Your task to perform on an android device: Go to Maps Image 0: 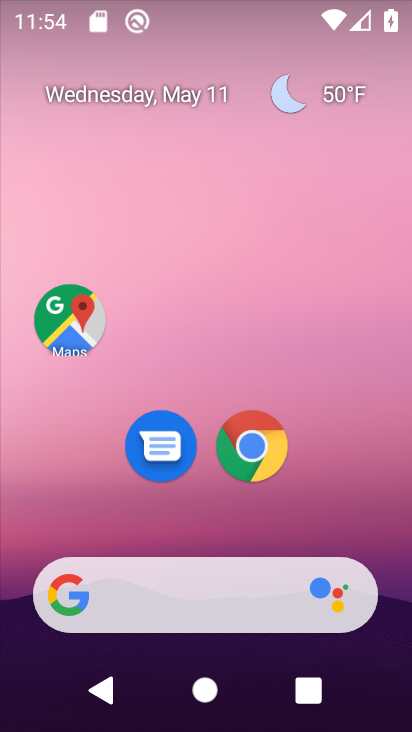
Step 0: click (89, 325)
Your task to perform on an android device: Go to Maps Image 1: 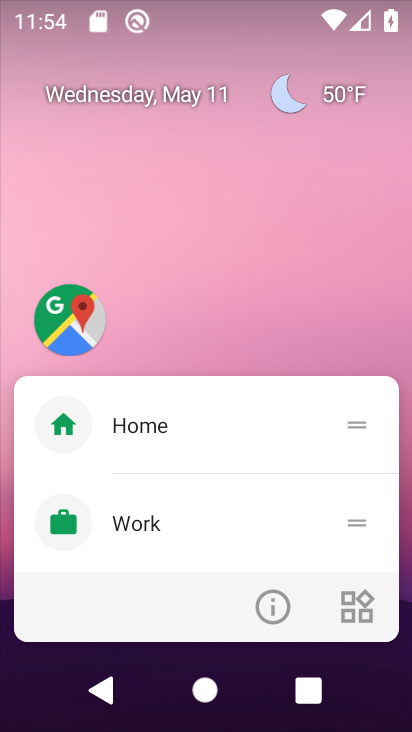
Step 1: click (89, 325)
Your task to perform on an android device: Go to Maps Image 2: 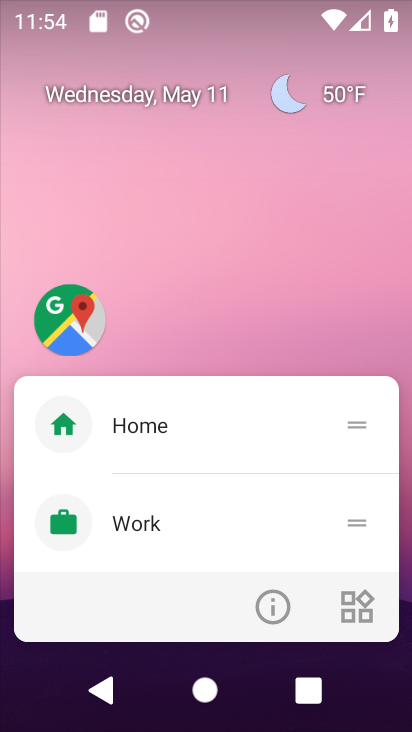
Step 2: click (79, 338)
Your task to perform on an android device: Go to Maps Image 3: 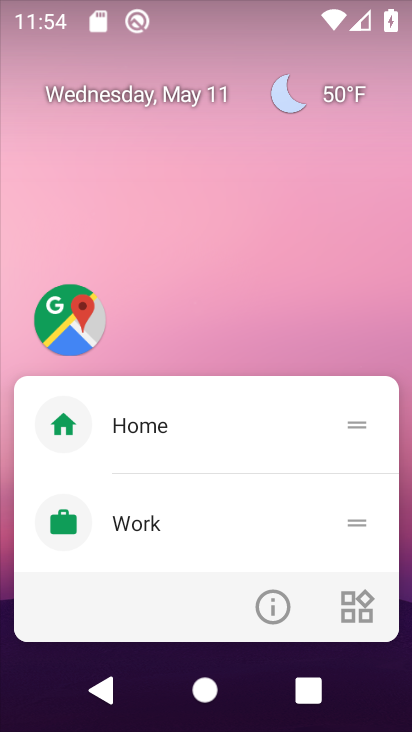
Step 3: click (79, 338)
Your task to perform on an android device: Go to Maps Image 4: 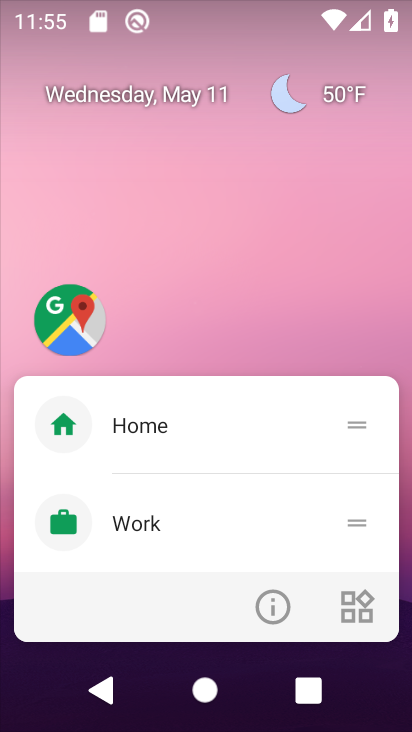
Step 4: click (79, 338)
Your task to perform on an android device: Go to Maps Image 5: 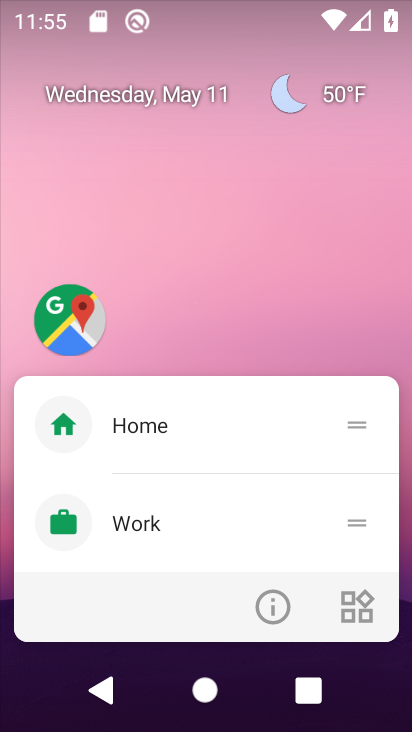
Step 5: click (77, 340)
Your task to perform on an android device: Go to Maps Image 6: 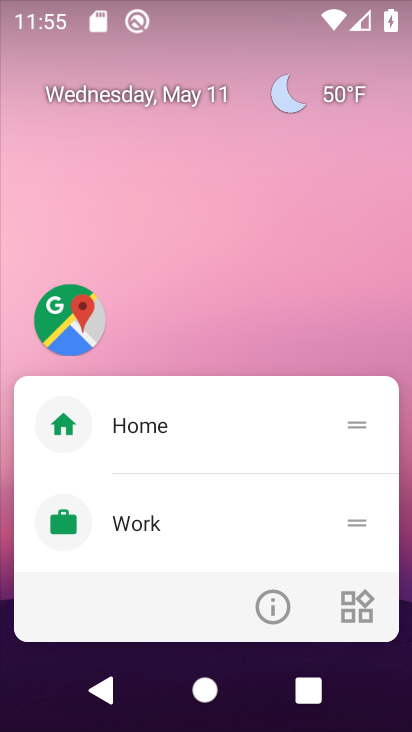
Step 6: click (77, 340)
Your task to perform on an android device: Go to Maps Image 7: 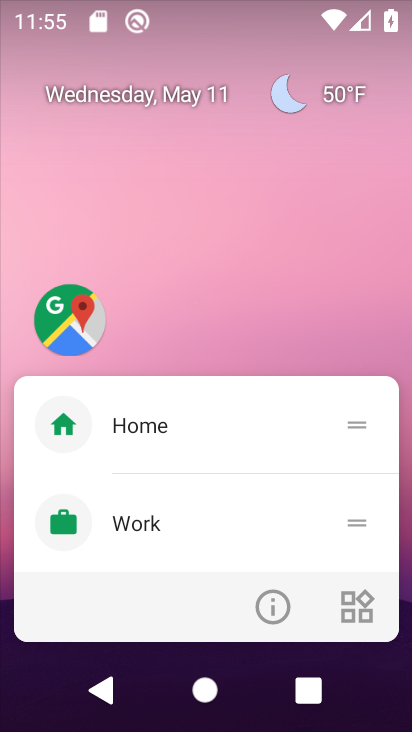
Step 7: click (77, 340)
Your task to perform on an android device: Go to Maps Image 8: 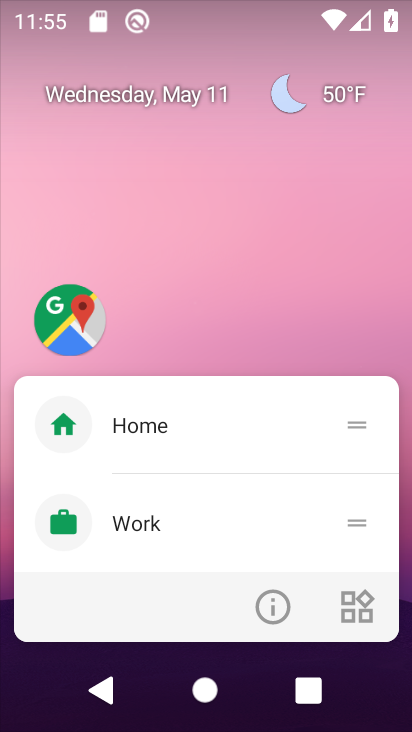
Step 8: click (60, 353)
Your task to perform on an android device: Go to Maps Image 9: 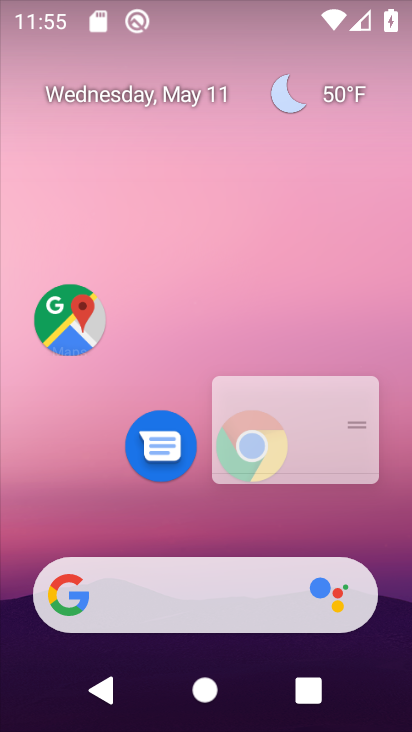
Step 9: click (60, 353)
Your task to perform on an android device: Go to Maps Image 10: 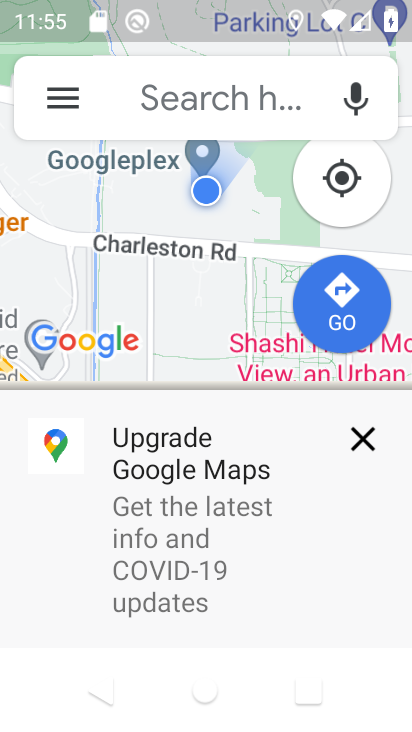
Step 10: task complete